Your task to perform on an android device: Open calendar and show me the third week of next month Image 0: 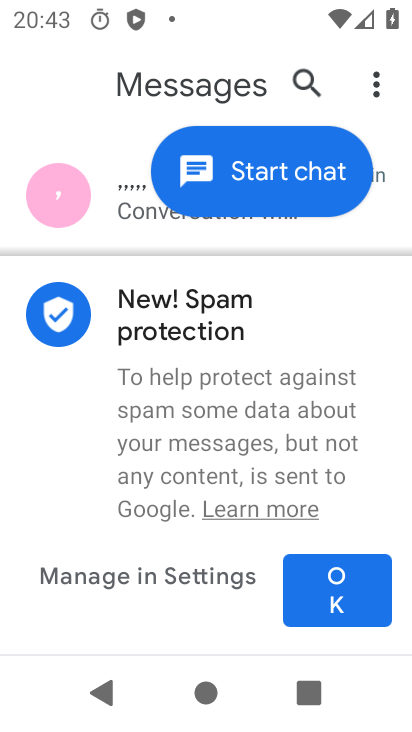
Step 0: drag from (204, 477) to (68, 218)
Your task to perform on an android device: Open calendar and show me the third week of next month Image 1: 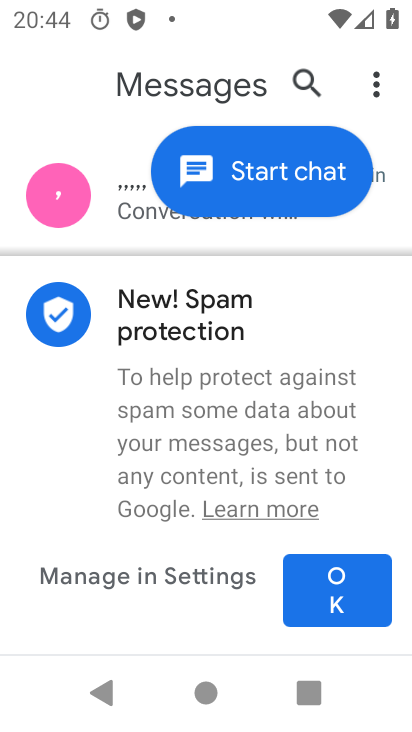
Step 1: press back button
Your task to perform on an android device: Open calendar and show me the third week of next month Image 2: 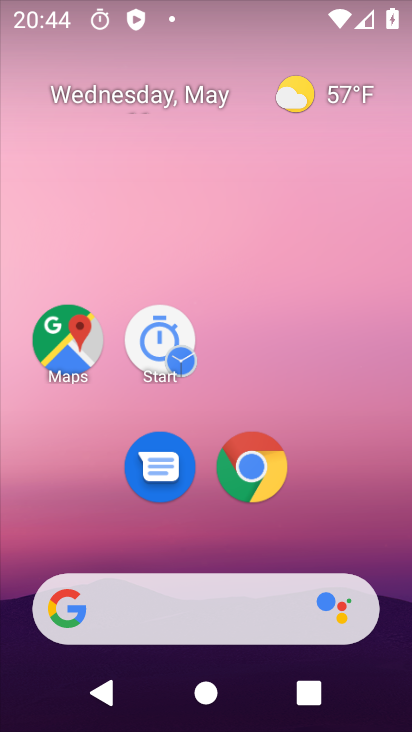
Step 2: drag from (312, 535) to (150, 0)
Your task to perform on an android device: Open calendar and show me the third week of next month Image 3: 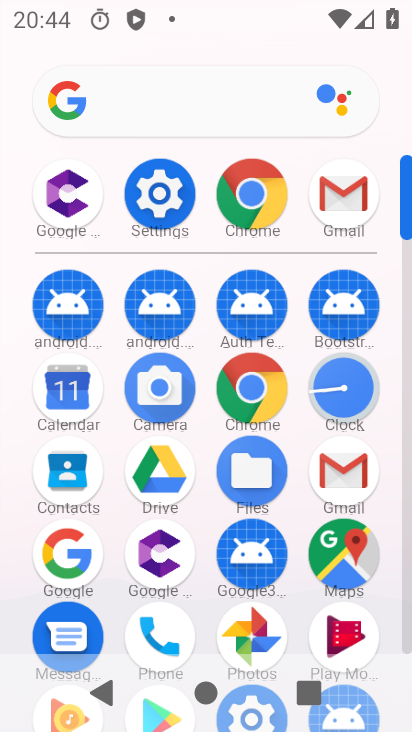
Step 3: click (74, 385)
Your task to perform on an android device: Open calendar and show me the third week of next month Image 4: 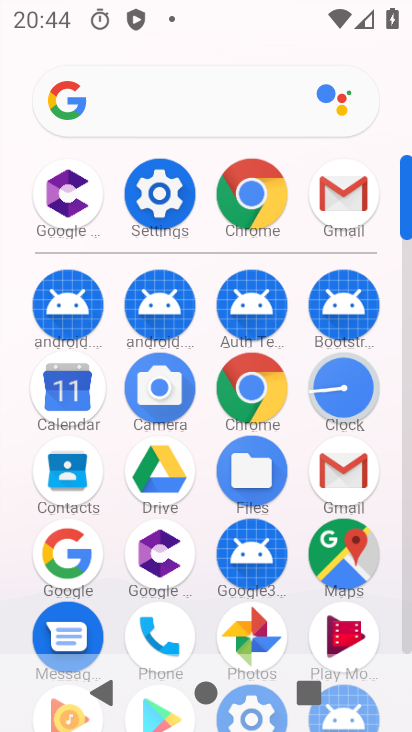
Step 4: click (80, 381)
Your task to perform on an android device: Open calendar and show me the third week of next month Image 5: 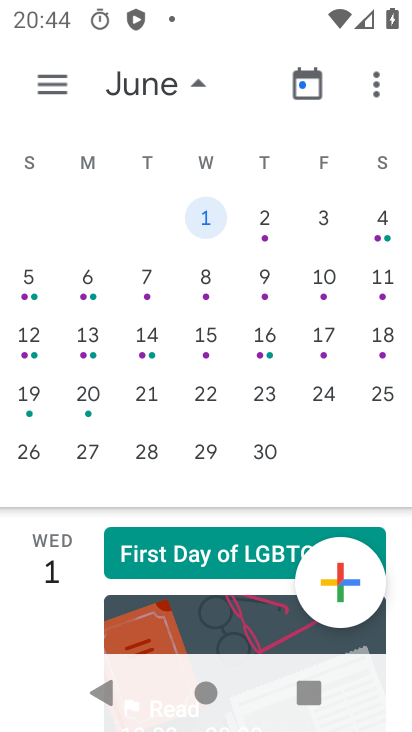
Step 5: click (211, 326)
Your task to perform on an android device: Open calendar and show me the third week of next month Image 6: 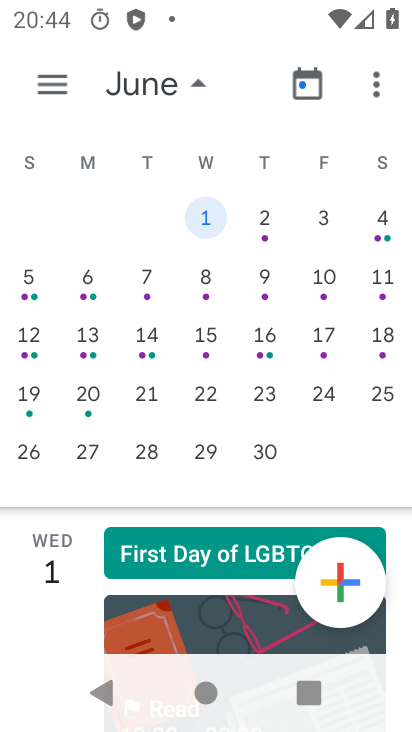
Step 6: click (211, 326)
Your task to perform on an android device: Open calendar and show me the third week of next month Image 7: 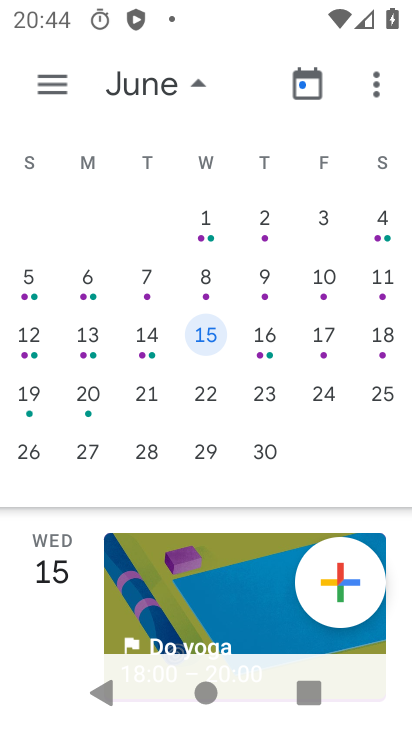
Step 7: task complete